Your task to perform on an android device: Open Reddit.com Image 0: 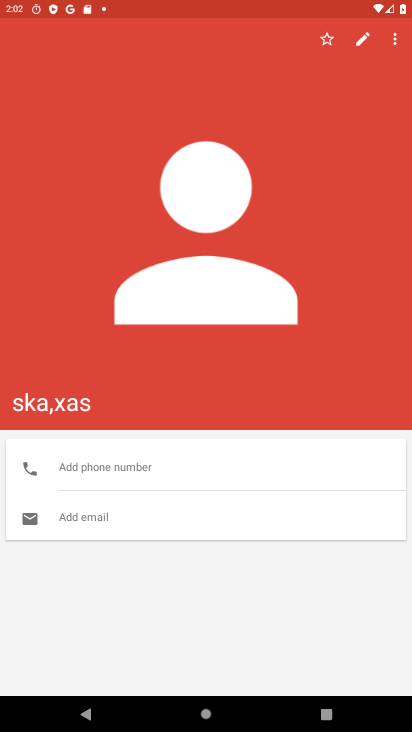
Step 0: press home button
Your task to perform on an android device: Open Reddit.com Image 1: 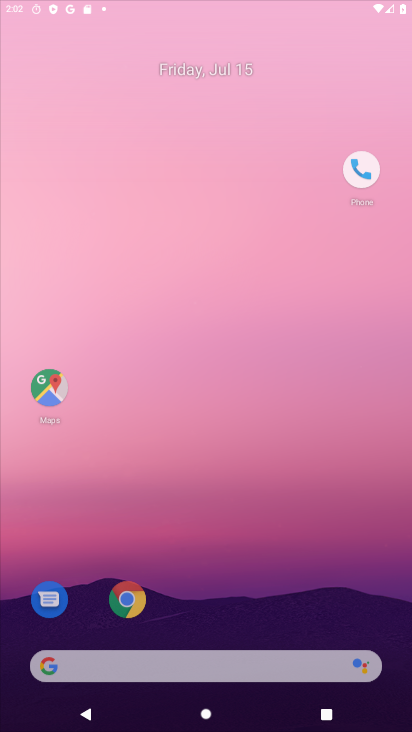
Step 1: drag from (215, 372) to (249, 176)
Your task to perform on an android device: Open Reddit.com Image 2: 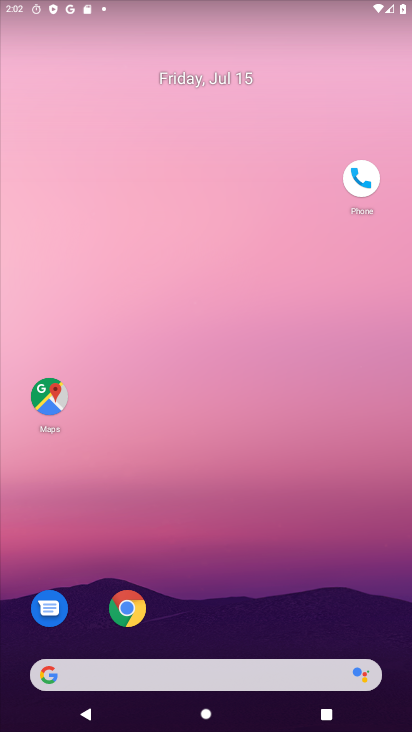
Step 2: drag from (190, 583) to (275, 40)
Your task to perform on an android device: Open Reddit.com Image 3: 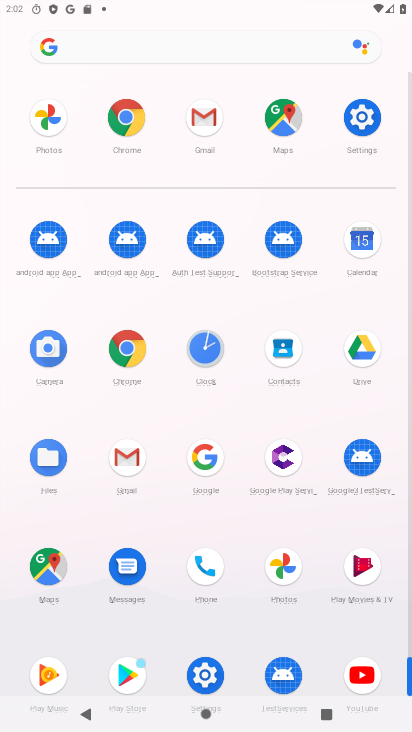
Step 3: click (159, 46)
Your task to perform on an android device: Open Reddit.com Image 4: 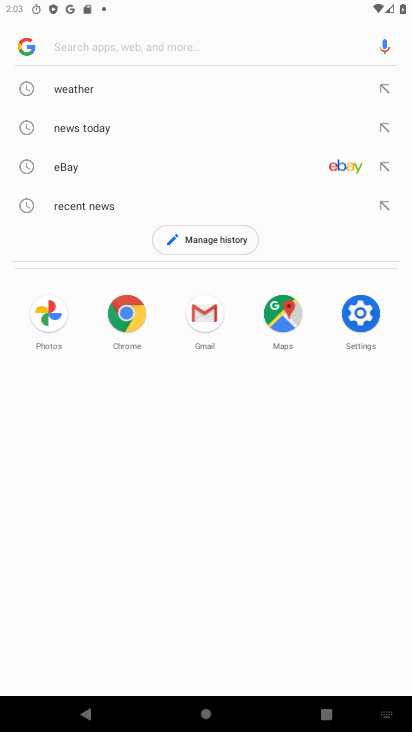
Step 4: type "Open Reddit.com"
Your task to perform on an android device: Open Reddit.com Image 5: 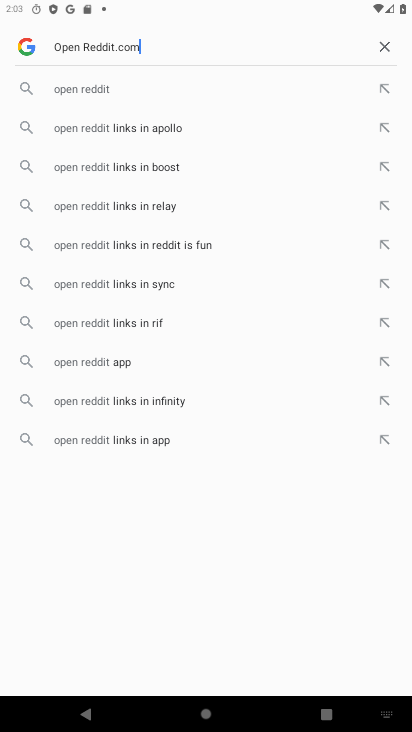
Step 5: type ""
Your task to perform on an android device: Open Reddit.com Image 6: 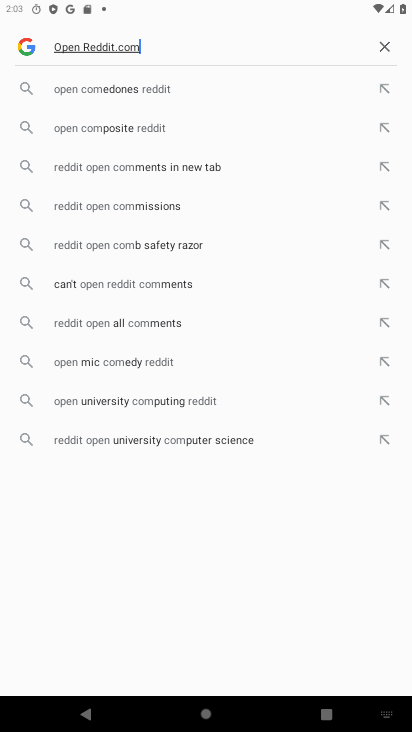
Step 6: click (149, 91)
Your task to perform on an android device: Open Reddit.com Image 7: 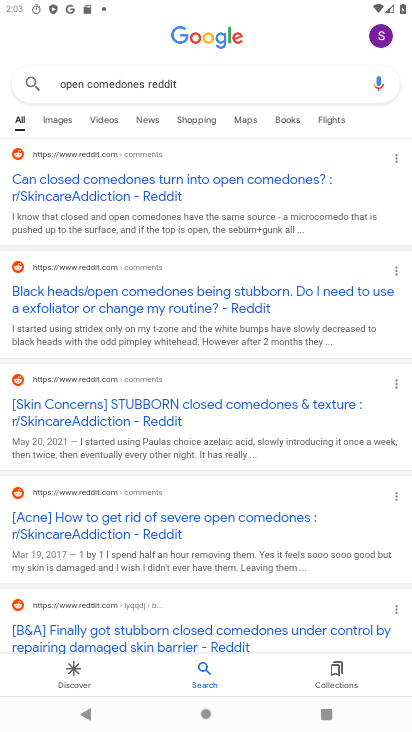
Step 7: click (108, 186)
Your task to perform on an android device: Open Reddit.com Image 8: 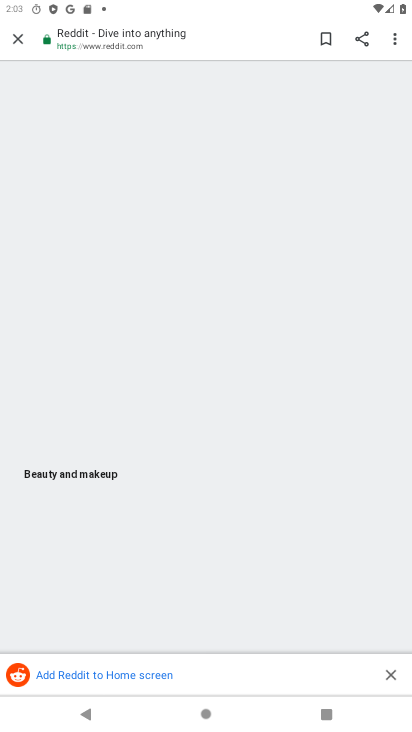
Step 8: task complete